Your task to perform on an android device: turn vacation reply on in the gmail app Image 0: 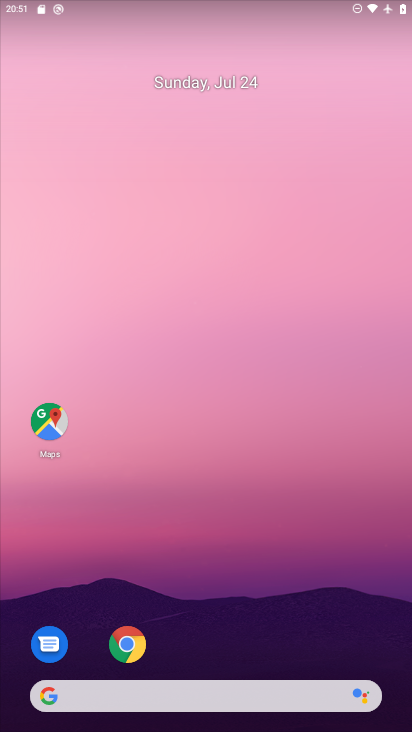
Step 0: drag from (370, 644) to (363, 201)
Your task to perform on an android device: turn vacation reply on in the gmail app Image 1: 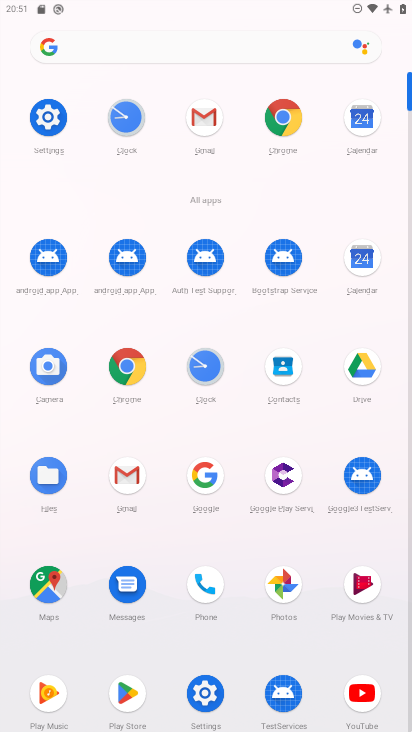
Step 1: click (127, 472)
Your task to perform on an android device: turn vacation reply on in the gmail app Image 2: 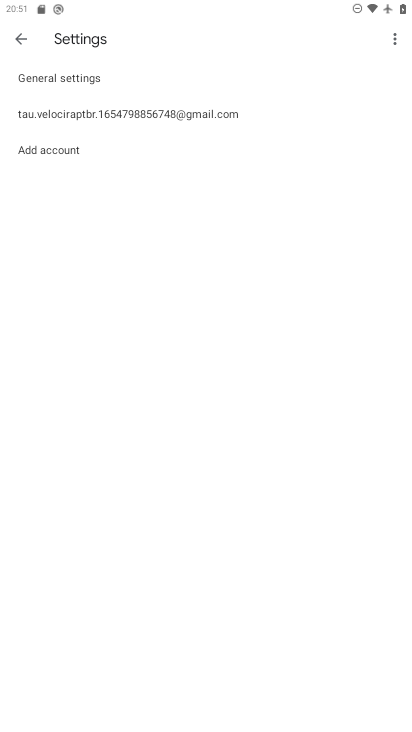
Step 2: click (89, 113)
Your task to perform on an android device: turn vacation reply on in the gmail app Image 3: 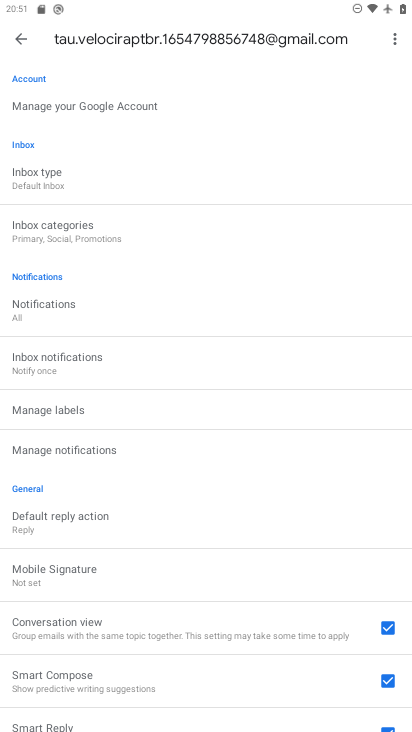
Step 3: drag from (114, 660) to (181, 172)
Your task to perform on an android device: turn vacation reply on in the gmail app Image 4: 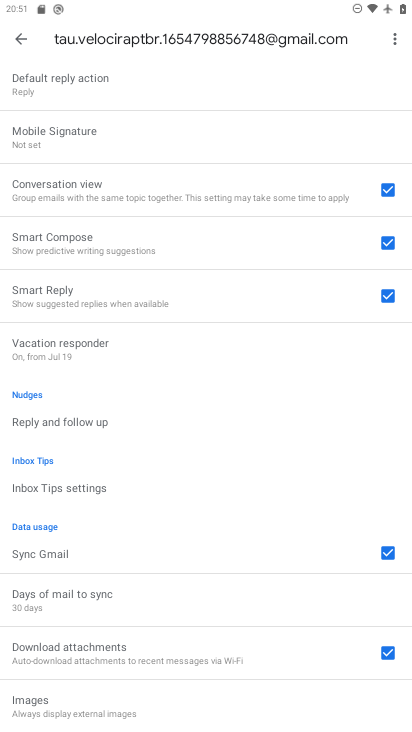
Step 4: click (51, 350)
Your task to perform on an android device: turn vacation reply on in the gmail app Image 5: 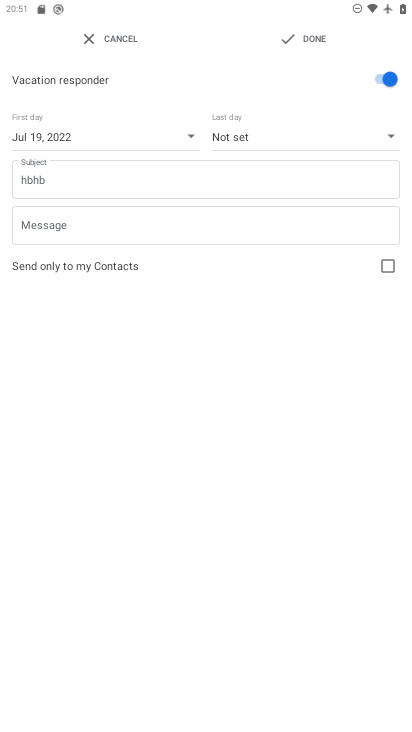
Step 5: click (302, 39)
Your task to perform on an android device: turn vacation reply on in the gmail app Image 6: 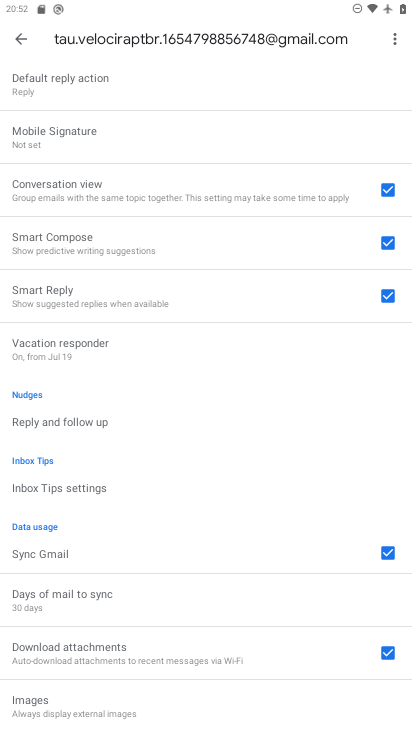
Step 6: task complete